Your task to perform on an android device: Go to location settings Image 0: 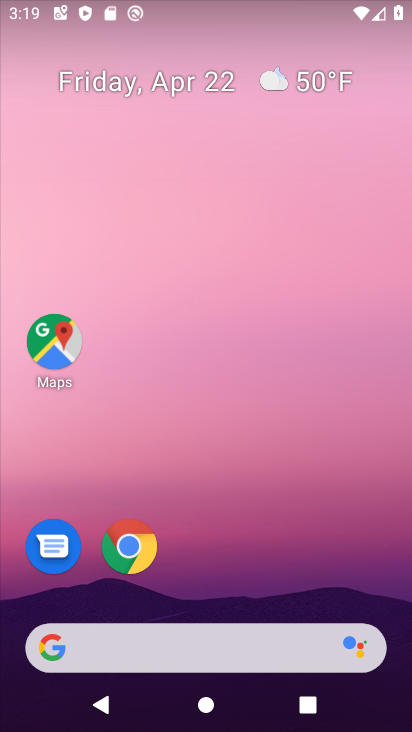
Step 0: drag from (268, 673) to (293, 149)
Your task to perform on an android device: Go to location settings Image 1: 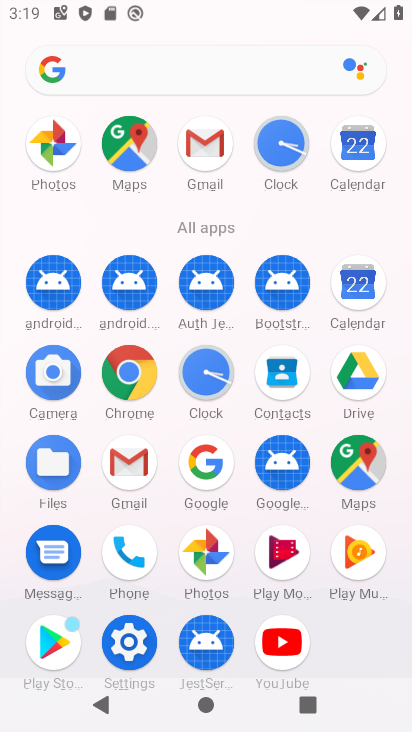
Step 1: click (127, 639)
Your task to perform on an android device: Go to location settings Image 2: 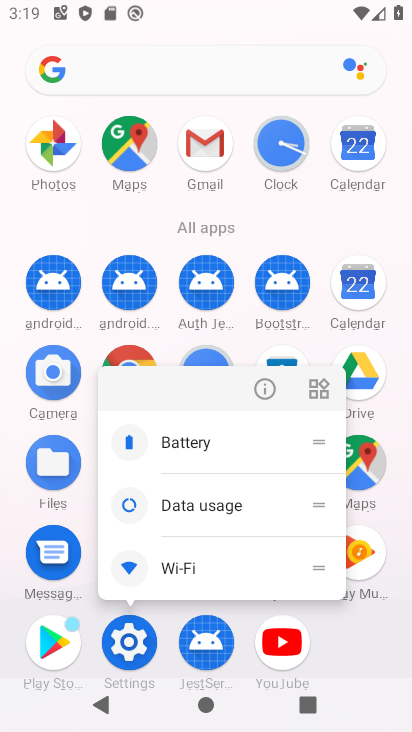
Step 2: click (139, 648)
Your task to perform on an android device: Go to location settings Image 3: 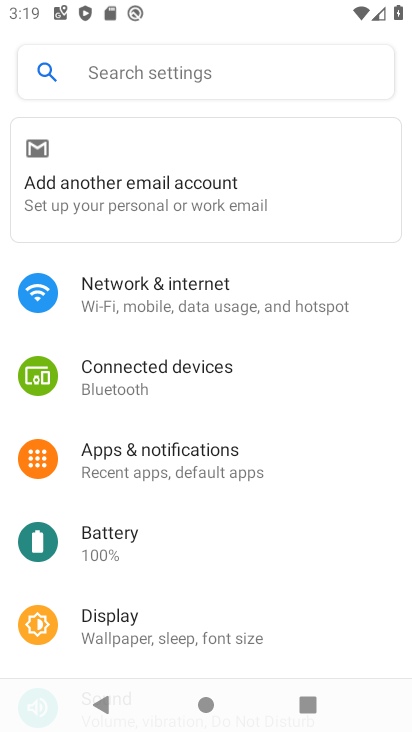
Step 3: drag from (210, 518) to (279, 292)
Your task to perform on an android device: Go to location settings Image 4: 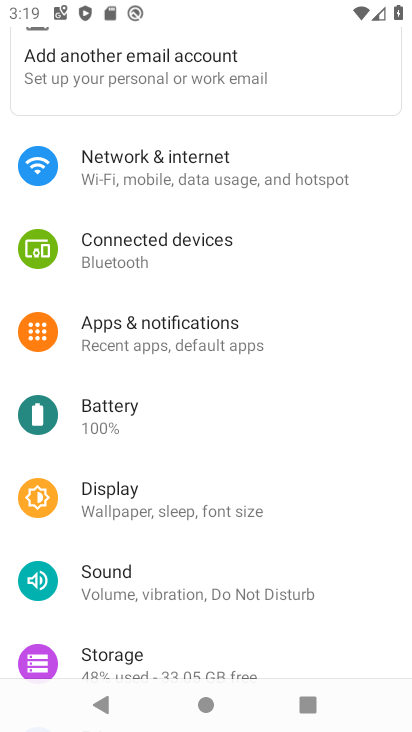
Step 4: drag from (209, 536) to (185, 244)
Your task to perform on an android device: Go to location settings Image 5: 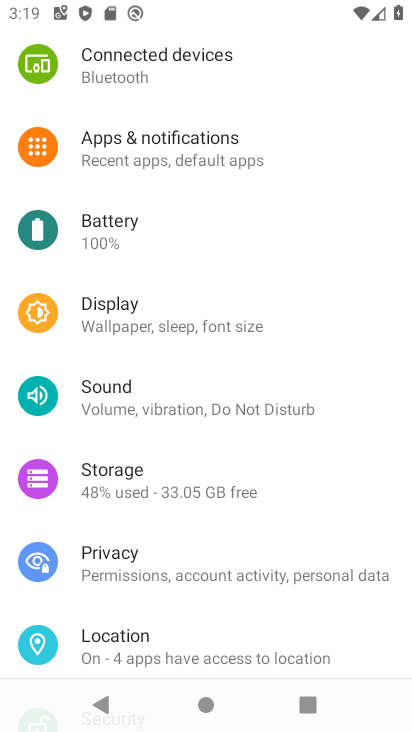
Step 5: click (204, 637)
Your task to perform on an android device: Go to location settings Image 6: 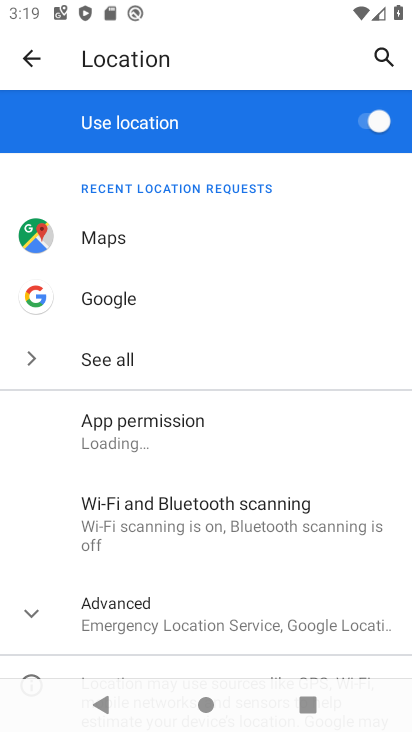
Step 6: task complete